Your task to perform on an android device: Show me recent news Image 0: 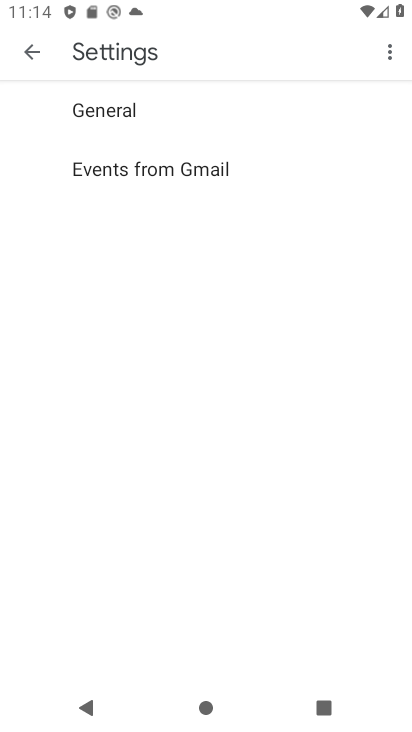
Step 0: press home button
Your task to perform on an android device: Show me recent news Image 1: 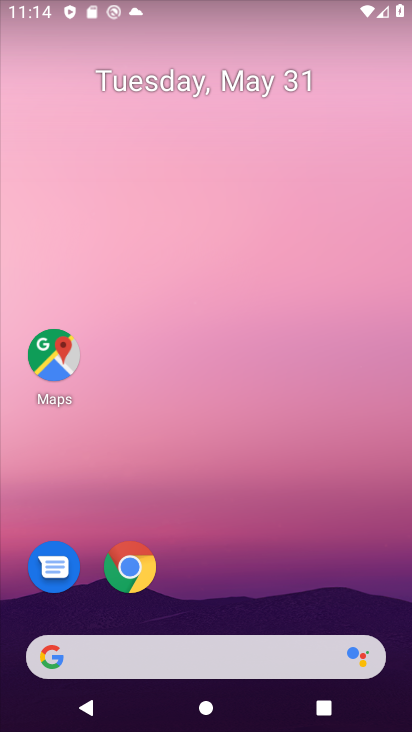
Step 1: task complete